Your task to perform on an android device: toggle priority inbox in the gmail app Image 0: 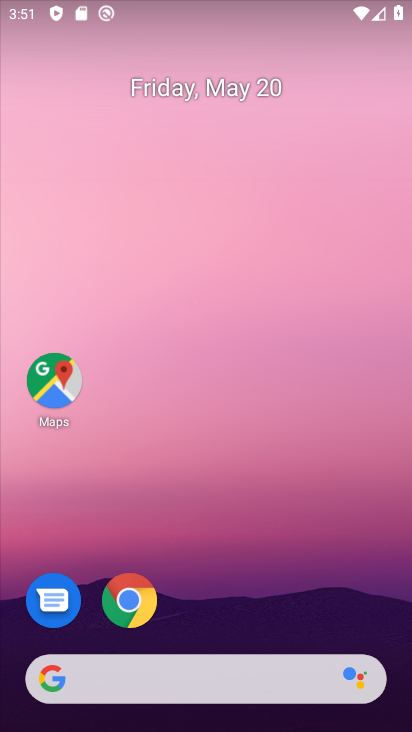
Step 0: drag from (200, 606) to (283, 49)
Your task to perform on an android device: toggle priority inbox in the gmail app Image 1: 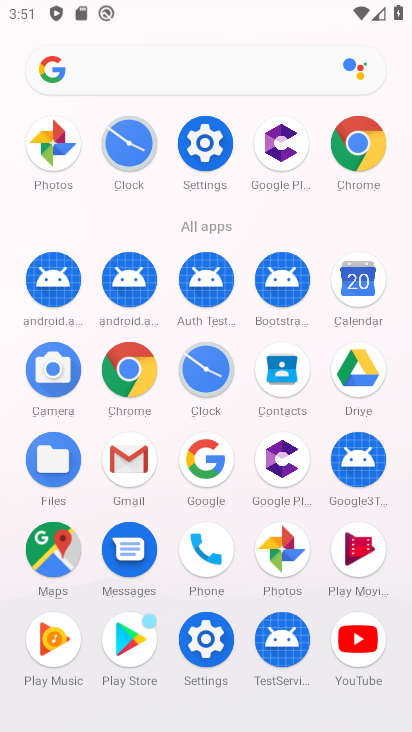
Step 1: click (138, 466)
Your task to perform on an android device: toggle priority inbox in the gmail app Image 2: 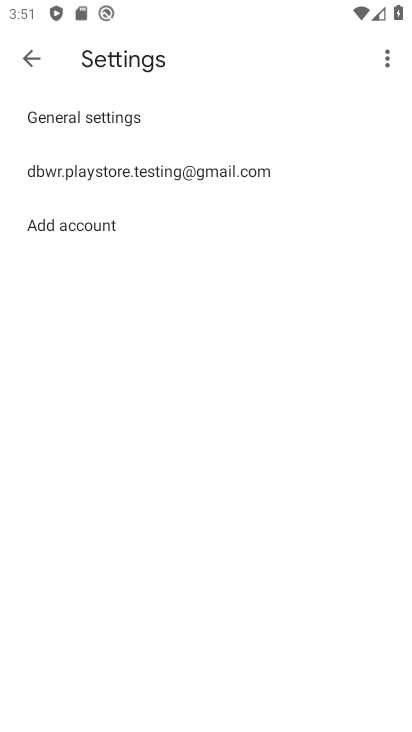
Step 2: click (96, 168)
Your task to perform on an android device: toggle priority inbox in the gmail app Image 3: 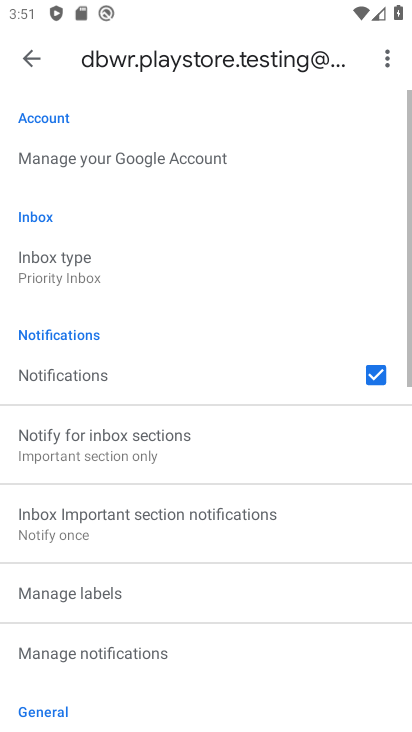
Step 3: click (56, 270)
Your task to perform on an android device: toggle priority inbox in the gmail app Image 4: 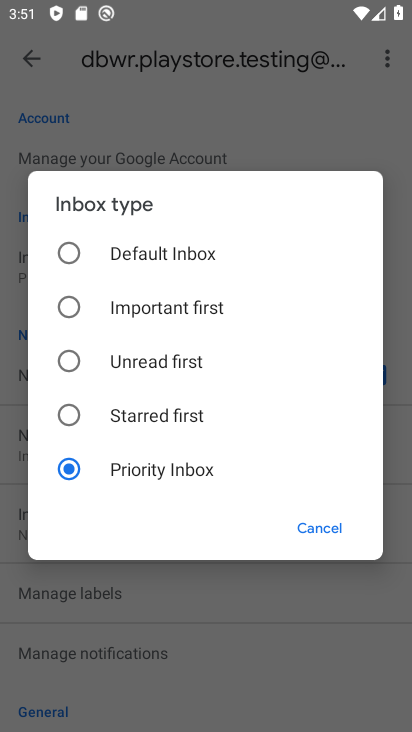
Step 4: task complete